Your task to perform on an android device: toggle translation in the chrome app Image 0: 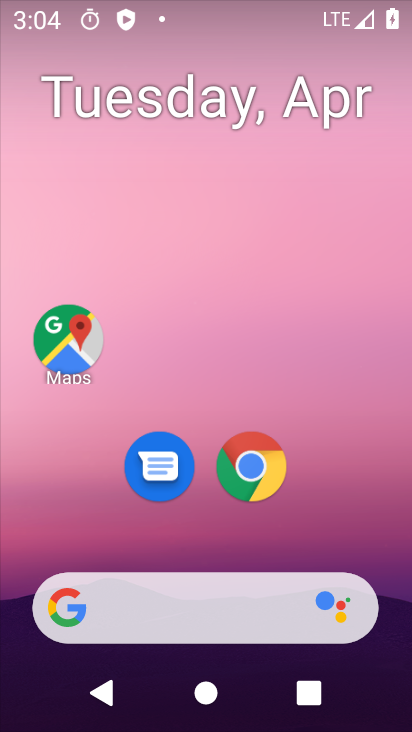
Step 0: click (256, 473)
Your task to perform on an android device: toggle translation in the chrome app Image 1: 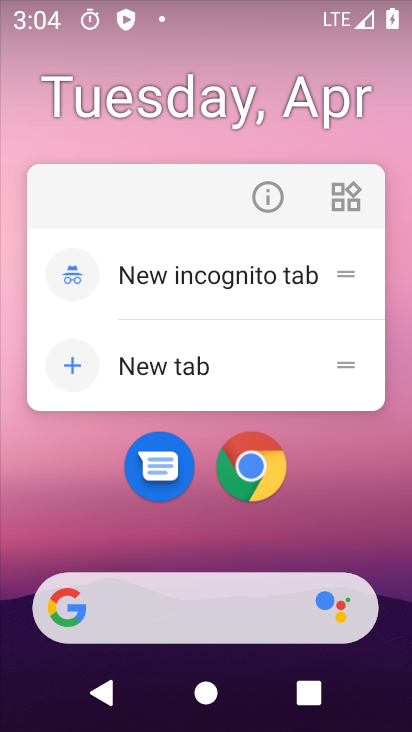
Step 1: click (272, 469)
Your task to perform on an android device: toggle translation in the chrome app Image 2: 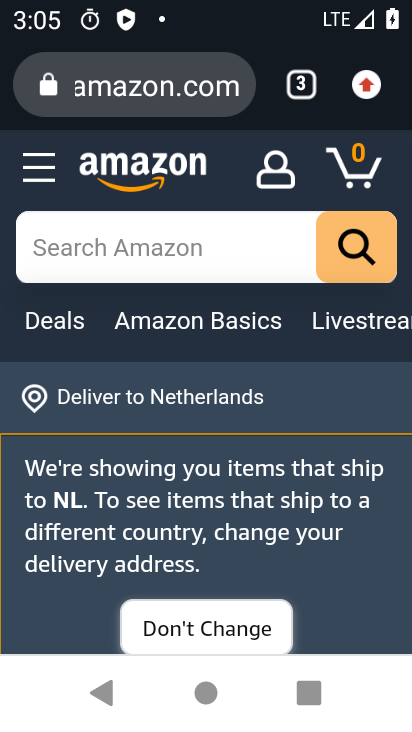
Step 2: drag from (363, 88) to (224, 515)
Your task to perform on an android device: toggle translation in the chrome app Image 3: 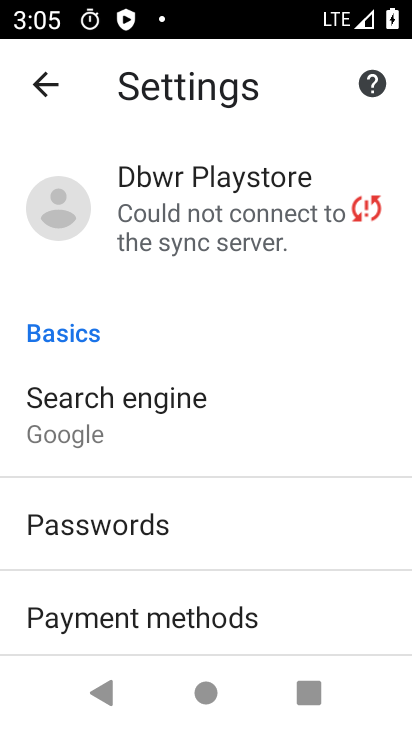
Step 3: drag from (130, 521) to (115, 99)
Your task to perform on an android device: toggle translation in the chrome app Image 4: 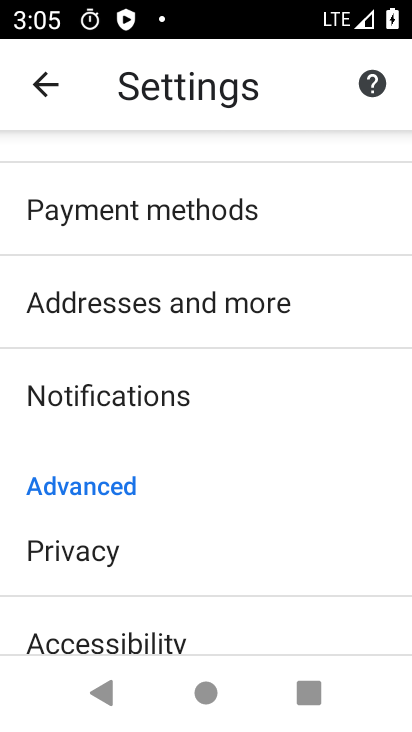
Step 4: drag from (145, 624) to (84, 155)
Your task to perform on an android device: toggle translation in the chrome app Image 5: 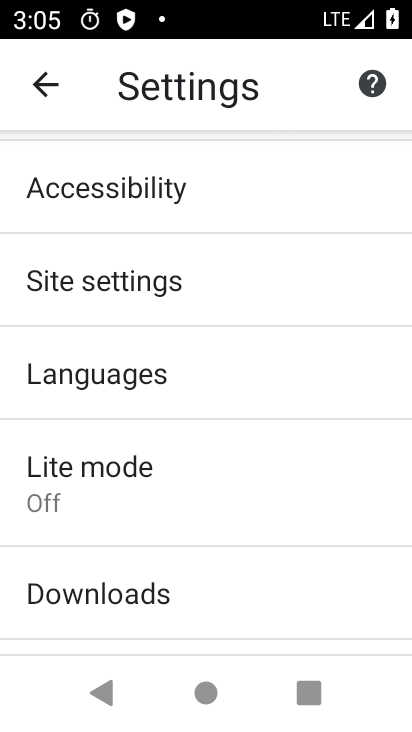
Step 5: click (108, 381)
Your task to perform on an android device: toggle translation in the chrome app Image 6: 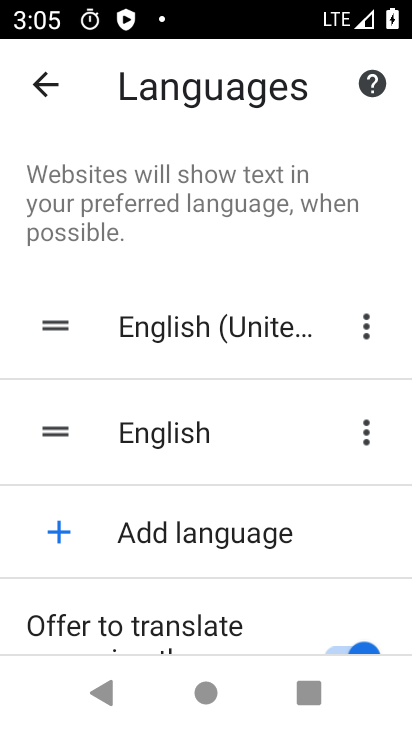
Step 6: click (186, 628)
Your task to perform on an android device: toggle translation in the chrome app Image 7: 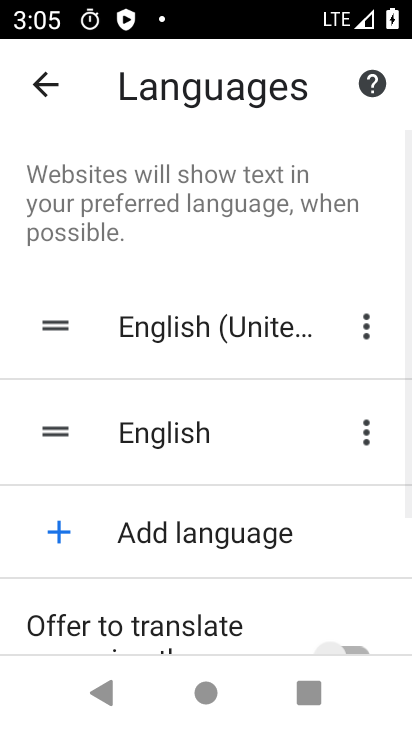
Step 7: task complete